Your task to perform on an android device: toggle wifi Image 0: 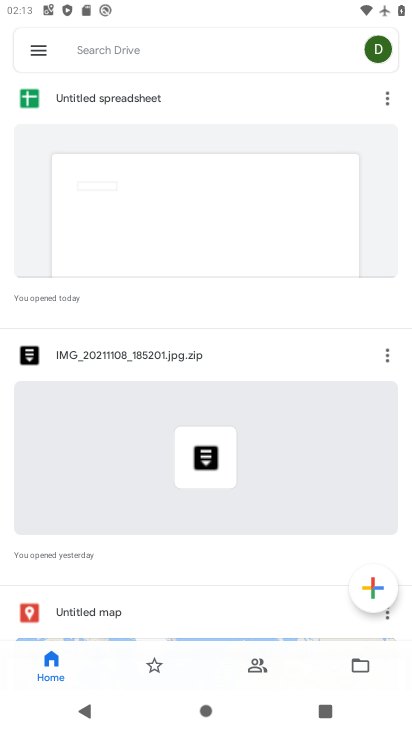
Step 0: press home button
Your task to perform on an android device: toggle wifi Image 1: 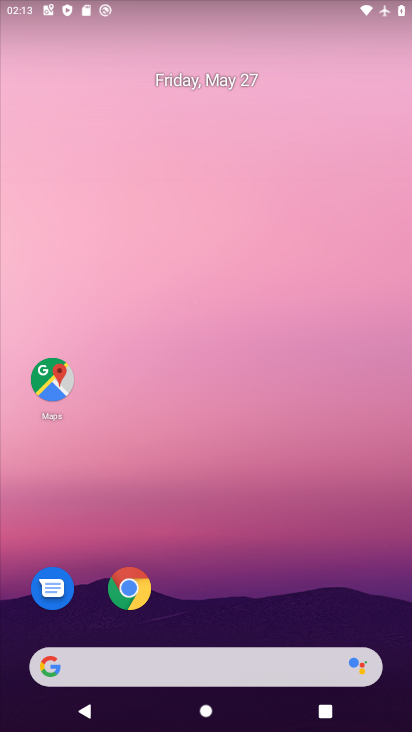
Step 1: drag from (351, 616) to (305, 57)
Your task to perform on an android device: toggle wifi Image 2: 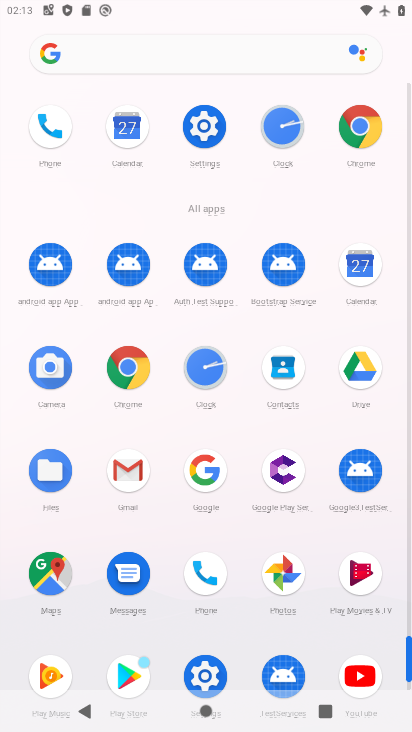
Step 2: click (202, 674)
Your task to perform on an android device: toggle wifi Image 3: 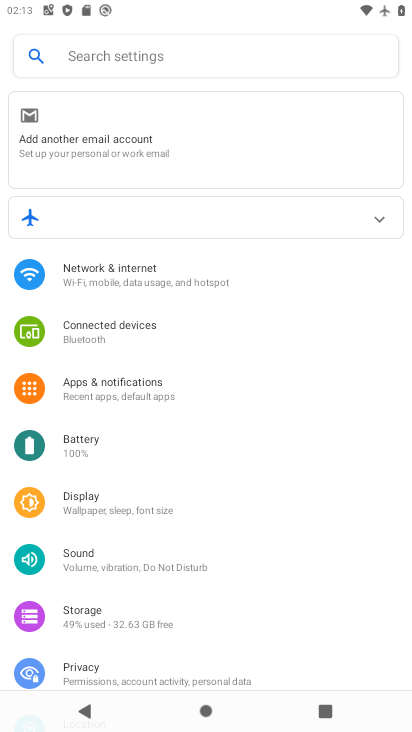
Step 3: click (113, 275)
Your task to perform on an android device: toggle wifi Image 4: 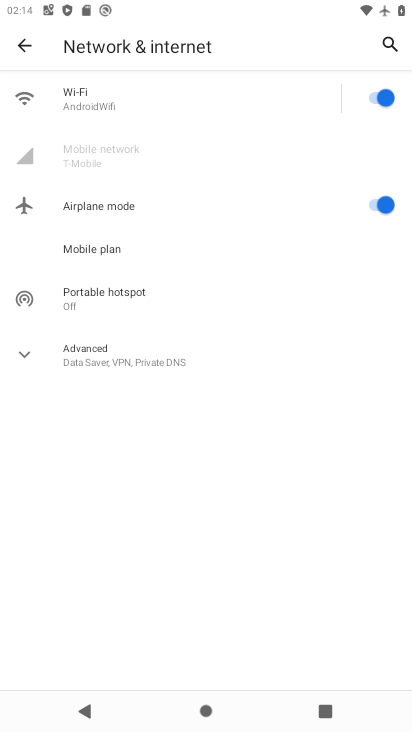
Step 4: click (368, 94)
Your task to perform on an android device: toggle wifi Image 5: 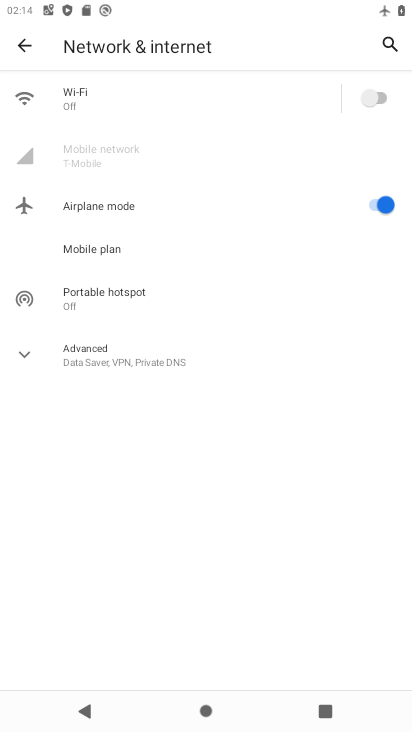
Step 5: task complete